Your task to perform on an android device: Search for vegetarian restaurants on Maps Image 0: 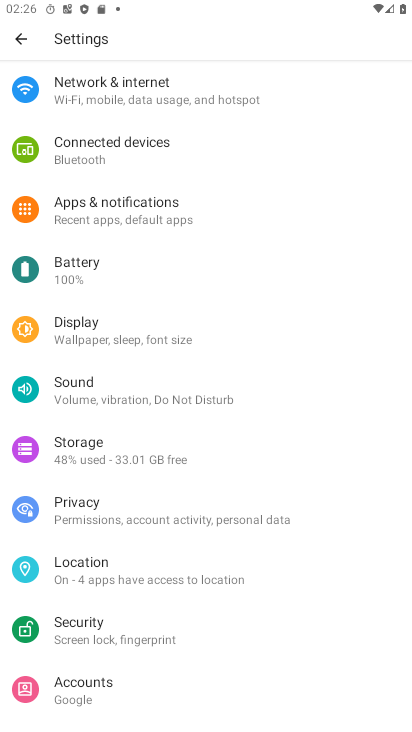
Step 0: press back button
Your task to perform on an android device: Search for vegetarian restaurants on Maps Image 1: 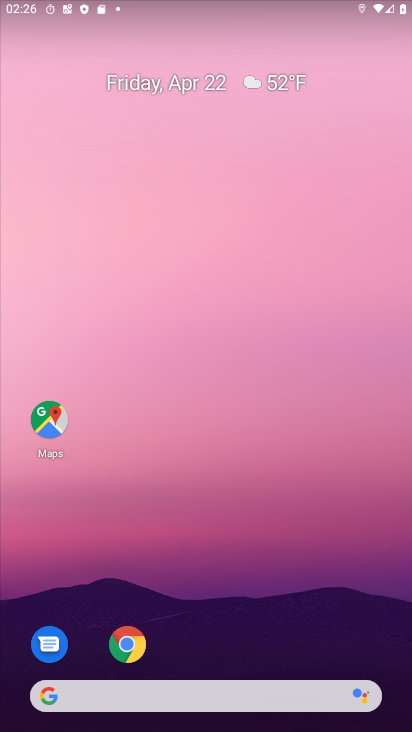
Step 1: click (58, 425)
Your task to perform on an android device: Search for vegetarian restaurants on Maps Image 2: 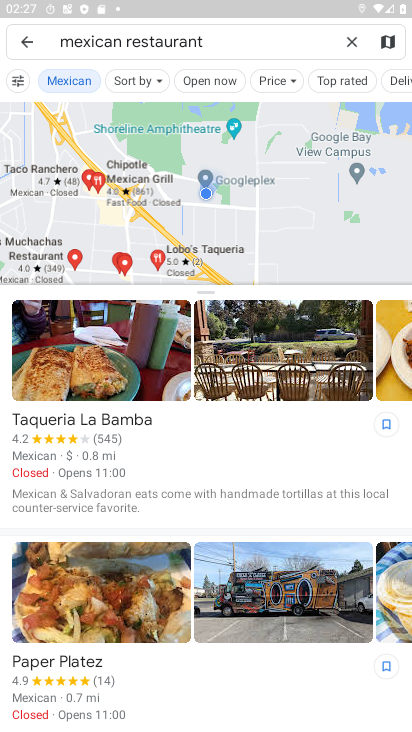
Step 2: click (351, 38)
Your task to perform on an android device: Search for vegetarian restaurants on Maps Image 3: 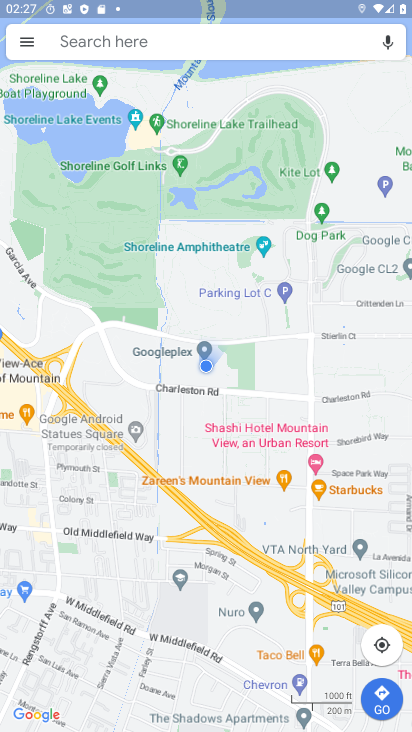
Step 3: click (140, 41)
Your task to perform on an android device: Search for vegetarian restaurants on Maps Image 4: 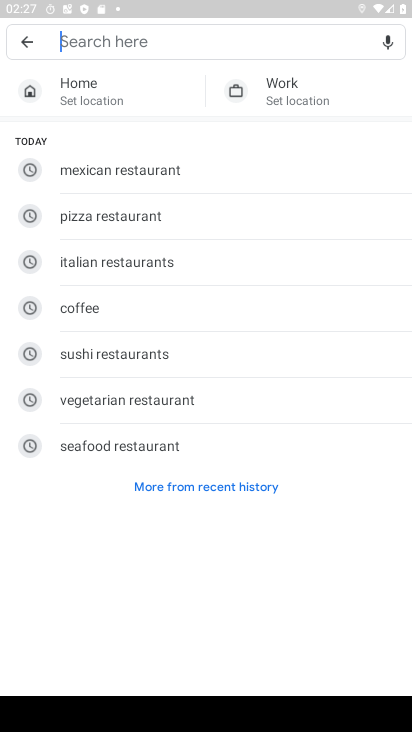
Step 4: click (123, 403)
Your task to perform on an android device: Search for vegetarian restaurants on Maps Image 5: 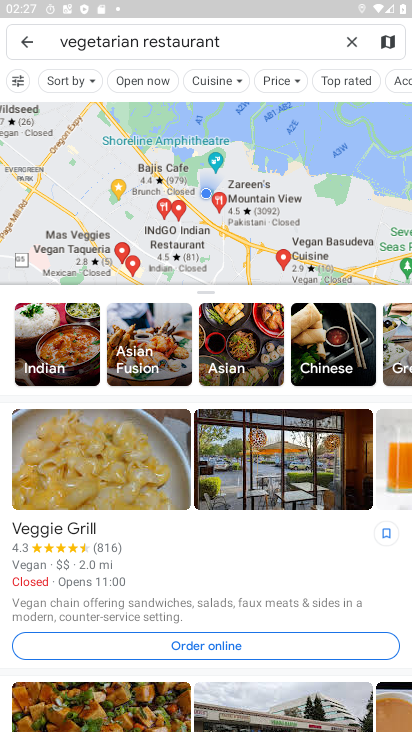
Step 5: task complete